Your task to perform on an android device: Go to display settings Image 0: 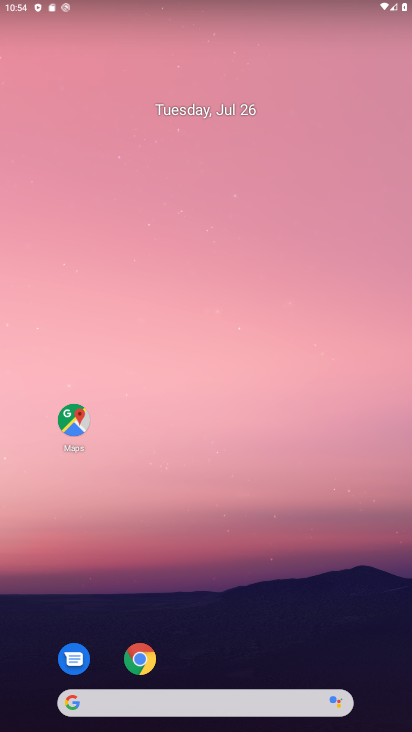
Step 0: drag from (8, 623) to (230, 47)
Your task to perform on an android device: Go to display settings Image 1: 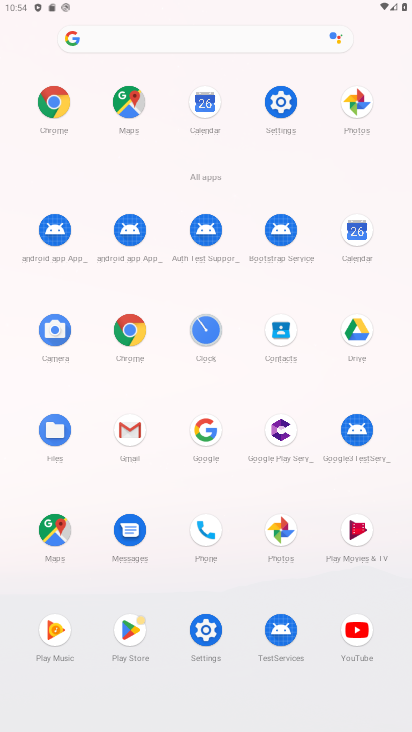
Step 1: click (280, 113)
Your task to perform on an android device: Go to display settings Image 2: 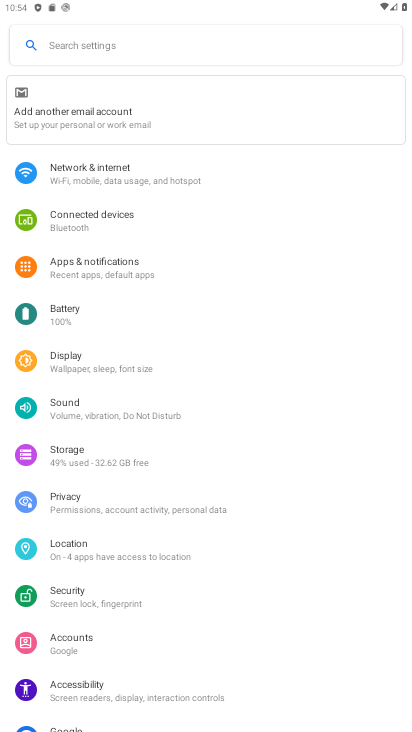
Step 2: click (94, 363)
Your task to perform on an android device: Go to display settings Image 3: 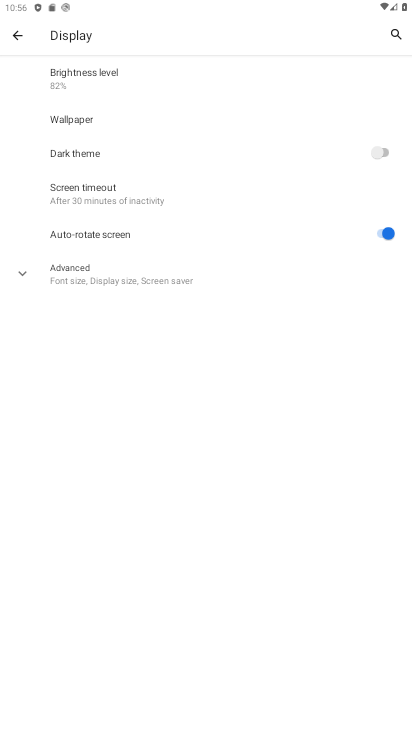
Step 3: press home button
Your task to perform on an android device: Go to display settings Image 4: 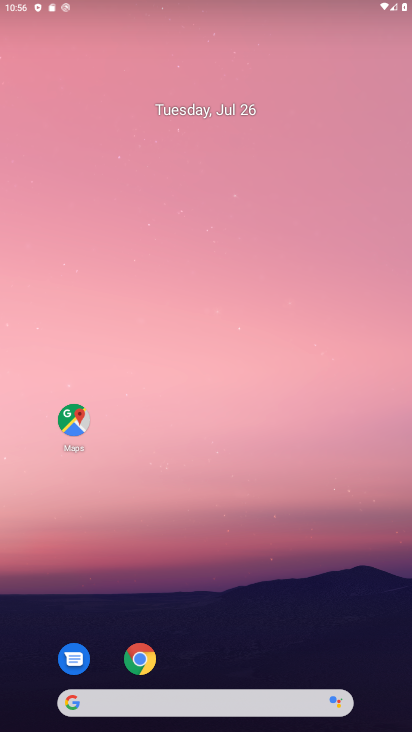
Step 4: drag from (26, 609) to (237, 166)
Your task to perform on an android device: Go to display settings Image 5: 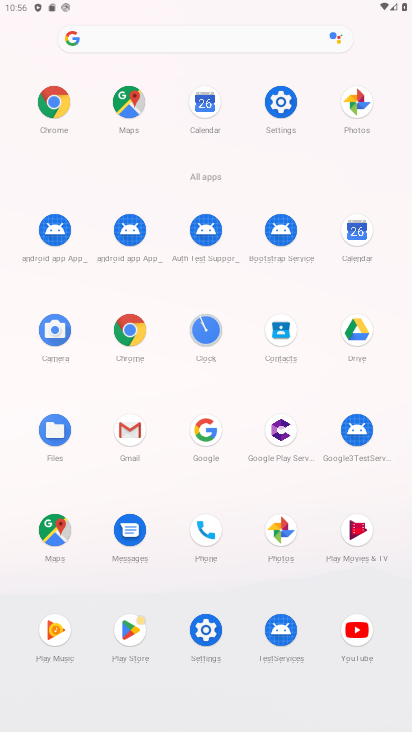
Step 5: click (272, 117)
Your task to perform on an android device: Go to display settings Image 6: 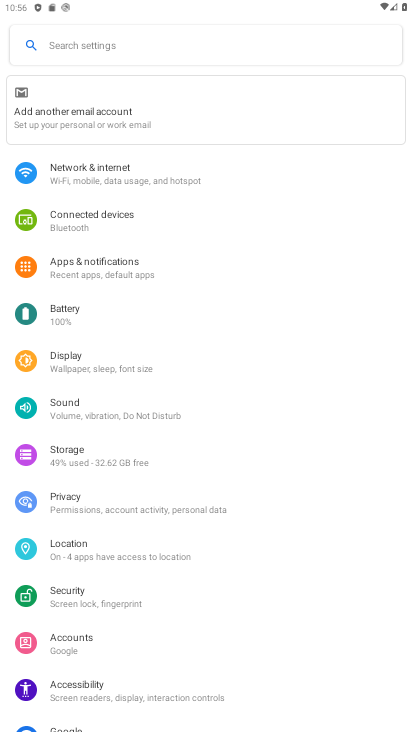
Step 6: click (75, 371)
Your task to perform on an android device: Go to display settings Image 7: 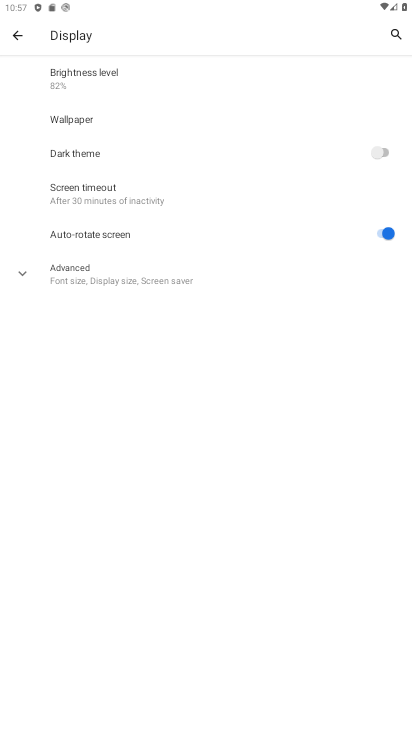
Step 7: task complete